Your task to perform on an android device: What's the weather going to be tomorrow? Image 0: 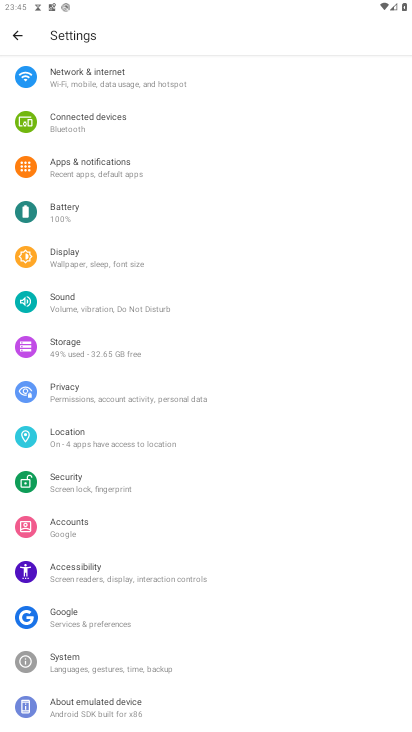
Step 0: press home button
Your task to perform on an android device: What's the weather going to be tomorrow? Image 1: 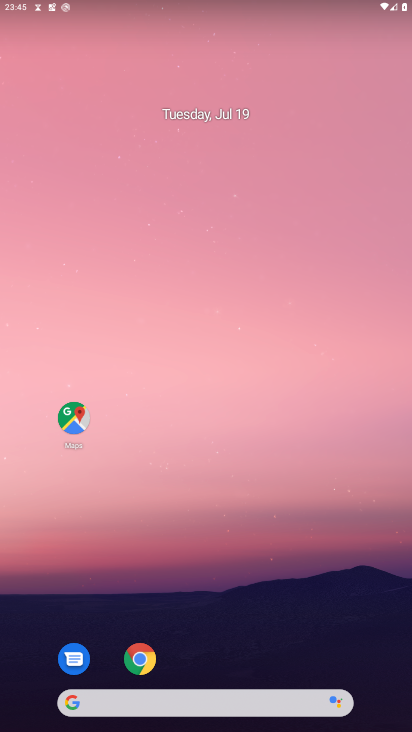
Step 1: drag from (11, 285) to (411, 190)
Your task to perform on an android device: What's the weather going to be tomorrow? Image 2: 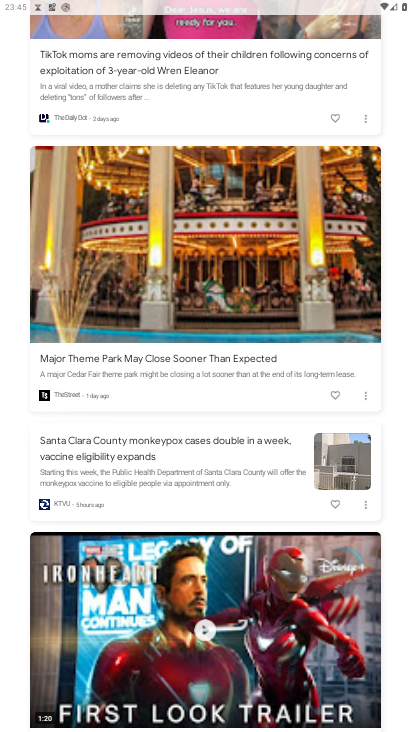
Step 2: drag from (243, 112) to (264, 582)
Your task to perform on an android device: What's the weather going to be tomorrow? Image 3: 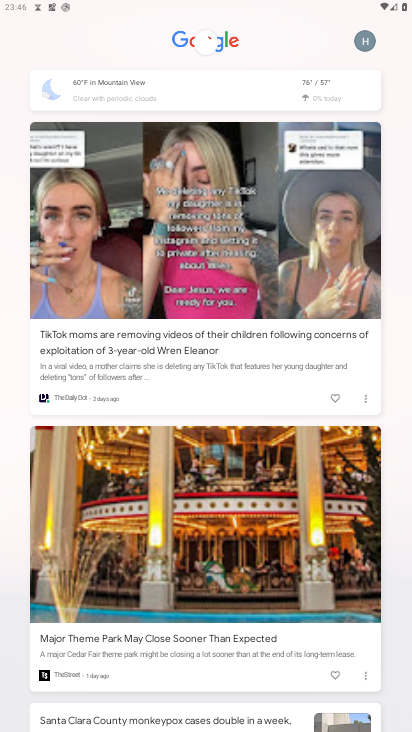
Step 3: click (321, 92)
Your task to perform on an android device: What's the weather going to be tomorrow? Image 4: 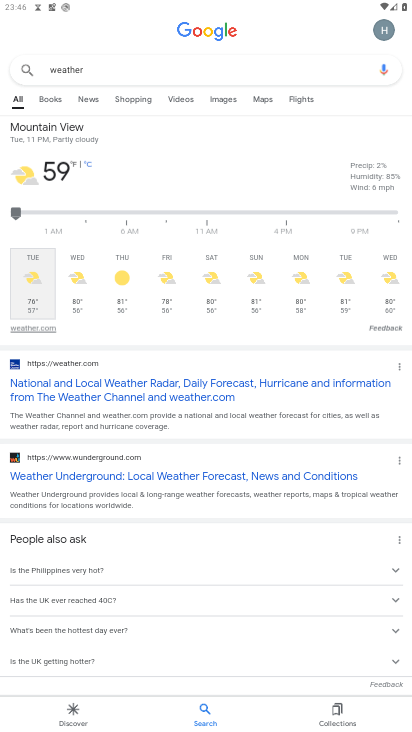
Step 4: click (79, 273)
Your task to perform on an android device: What's the weather going to be tomorrow? Image 5: 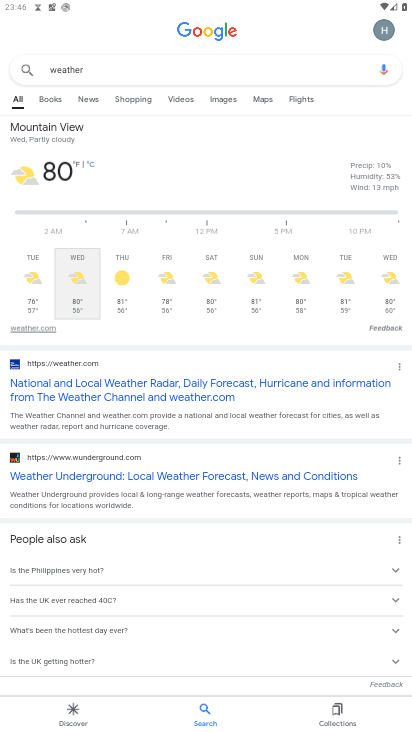
Step 5: task complete